Your task to perform on an android device: uninstall "Expedia: Hotels, Flights & Car" Image 0: 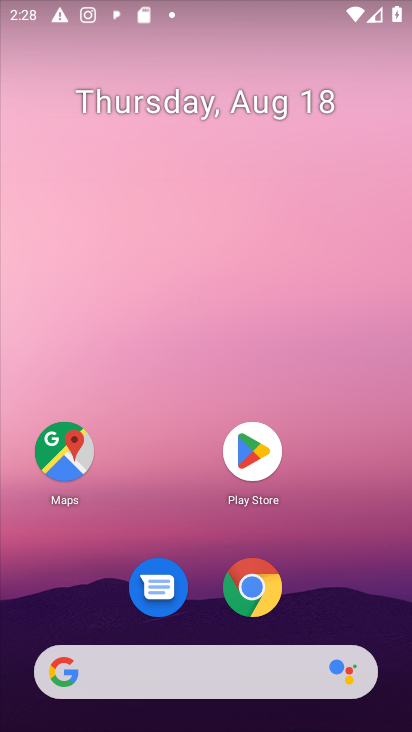
Step 0: press home button
Your task to perform on an android device: uninstall "Expedia: Hotels, Flights & Car" Image 1: 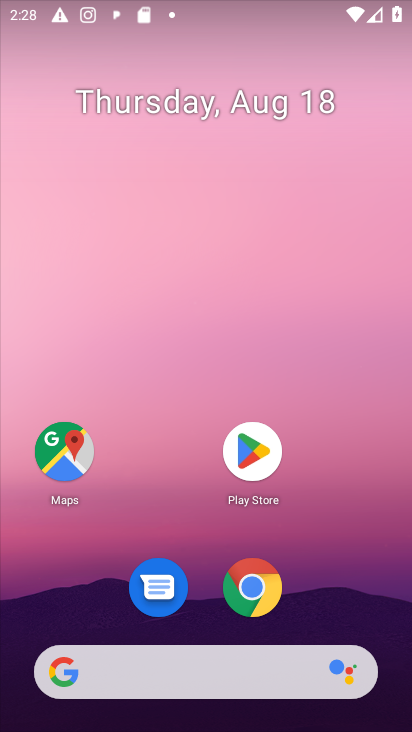
Step 1: click (258, 453)
Your task to perform on an android device: uninstall "Expedia: Hotels, Flights & Car" Image 2: 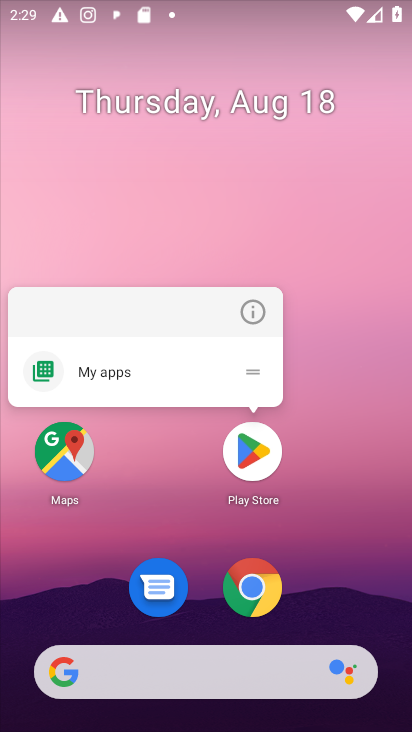
Step 2: click (258, 452)
Your task to perform on an android device: uninstall "Expedia: Hotels, Flights & Car" Image 3: 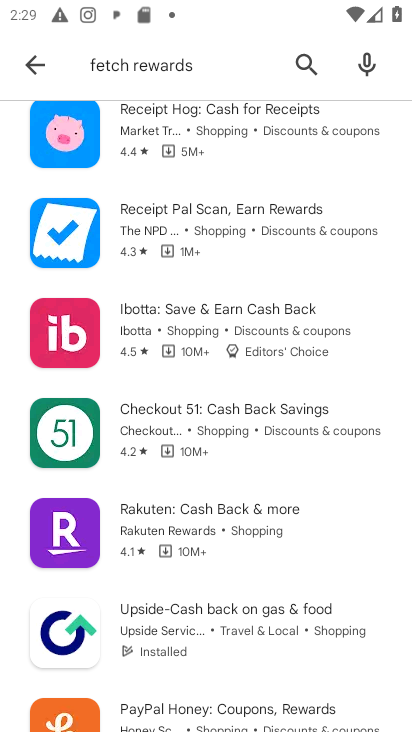
Step 3: click (300, 61)
Your task to perform on an android device: uninstall "Expedia: Hotels, Flights & Car" Image 4: 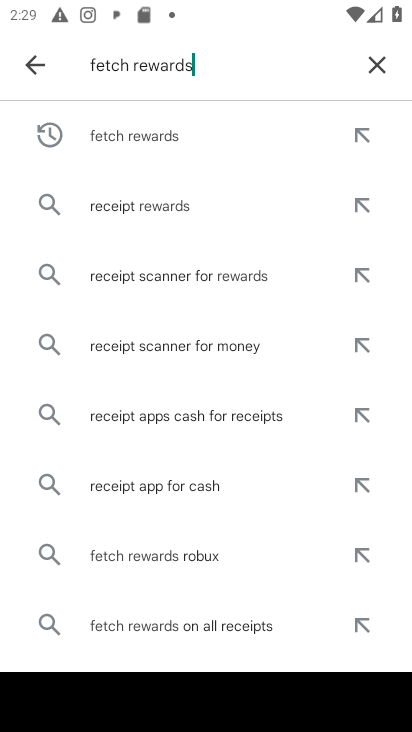
Step 4: click (370, 65)
Your task to perform on an android device: uninstall "Expedia: Hotels, Flights & Car" Image 5: 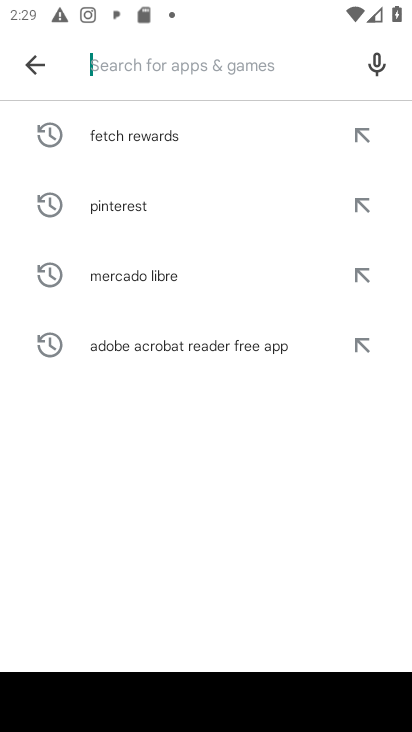
Step 5: drag from (262, 721) to (322, 731)
Your task to perform on an android device: uninstall "Expedia: Hotels, Flights & Car" Image 6: 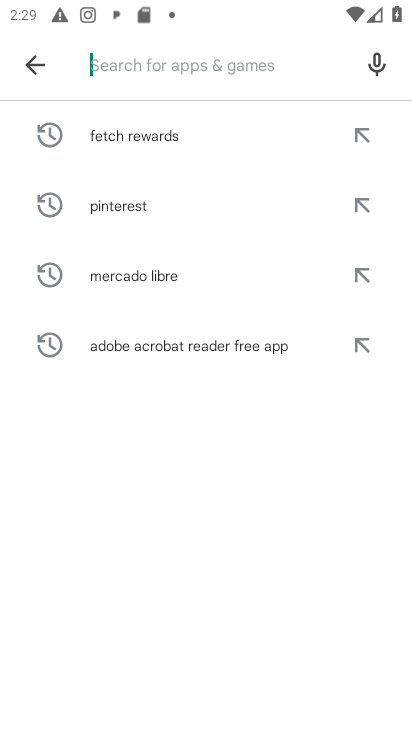
Step 6: type "Expedia: Hotels, Flights & Car"
Your task to perform on an android device: uninstall "Expedia: Hotels, Flights & Car" Image 7: 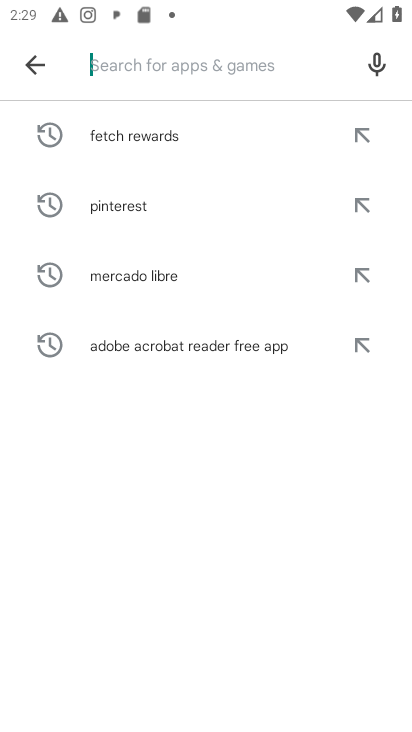
Step 7: drag from (322, 731) to (385, 596)
Your task to perform on an android device: uninstall "Expedia: Hotels, Flights & Car" Image 8: 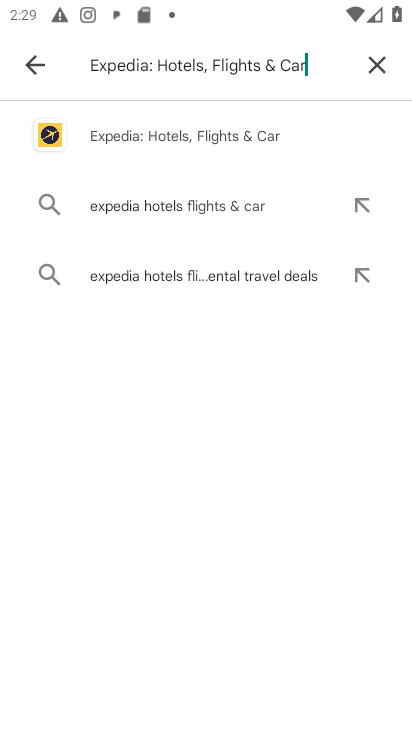
Step 8: click (172, 140)
Your task to perform on an android device: uninstall "Expedia: Hotels, Flights & Car" Image 9: 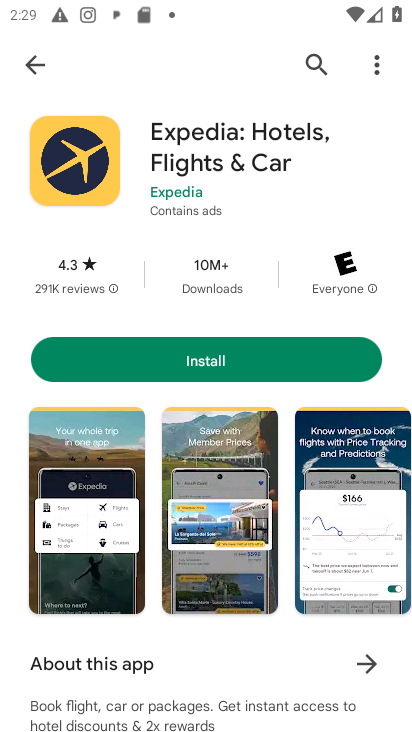
Step 9: task complete